Your task to perform on an android device: allow cookies in the chrome app Image 0: 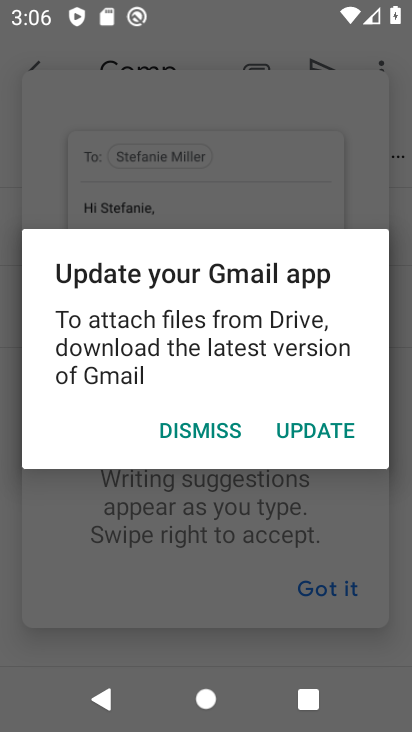
Step 0: press home button
Your task to perform on an android device: allow cookies in the chrome app Image 1: 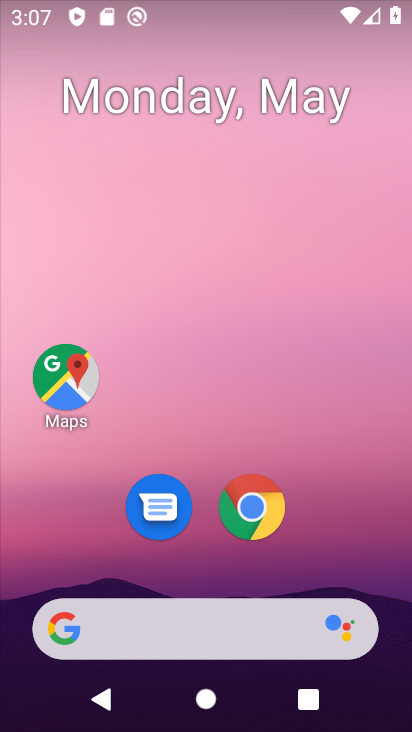
Step 1: click (272, 504)
Your task to perform on an android device: allow cookies in the chrome app Image 2: 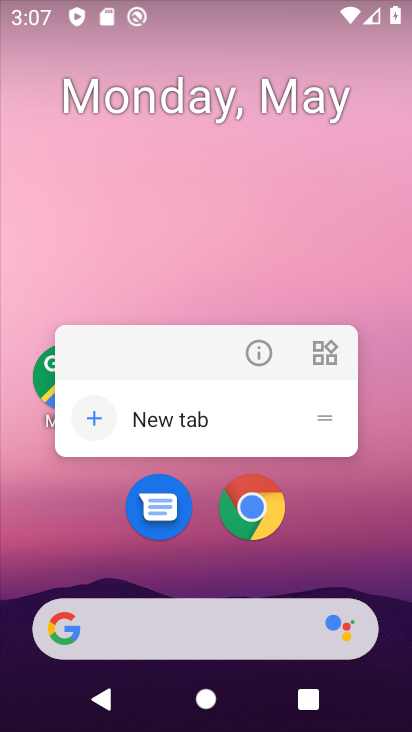
Step 2: click (258, 512)
Your task to perform on an android device: allow cookies in the chrome app Image 3: 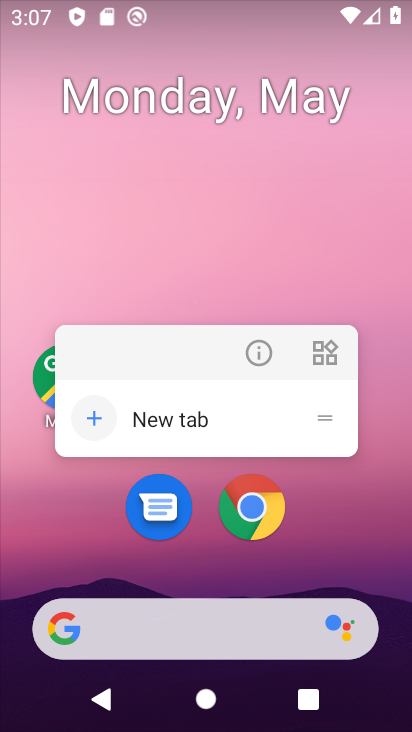
Step 3: click (259, 526)
Your task to perform on an android device: allow cookies in the chrome app Image 4: 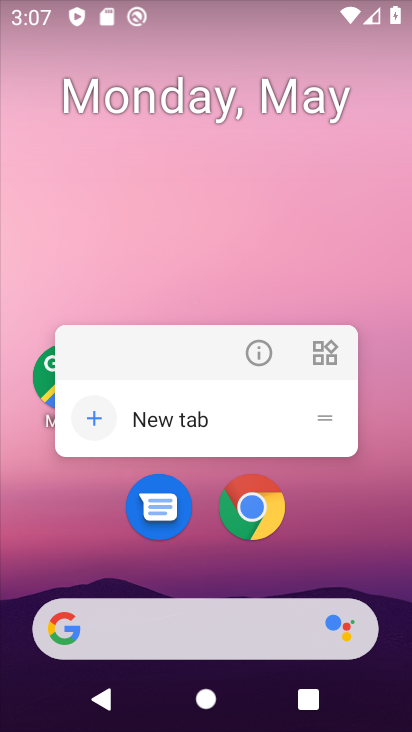
Step 4: click (259, 524)
Your task to perform on an android device: allow cookies in the chrome app Image 5: 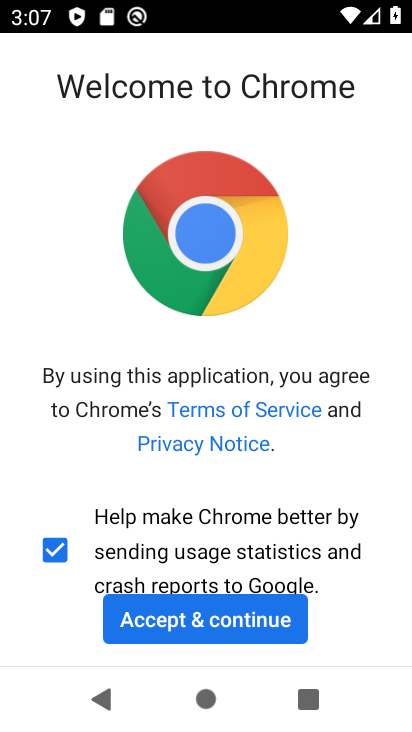
Step 5: click (239, 631)
Your task to perform on an android device: allow cookies in the chrome app Image 6: 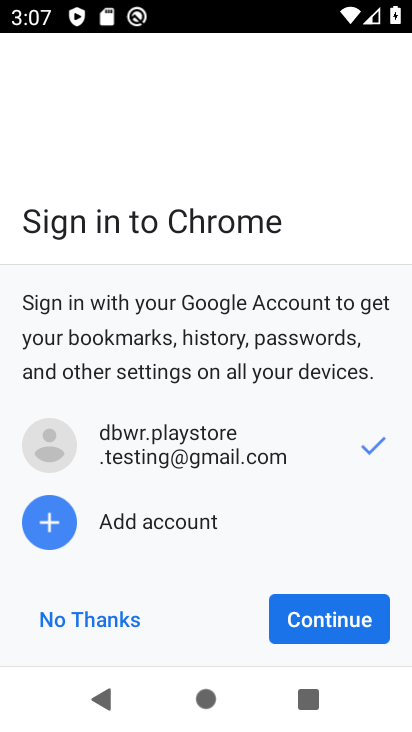
Step 6: click (322, 630)
Your task to perform on an android device: allow cookies in the chrome app Image 7: 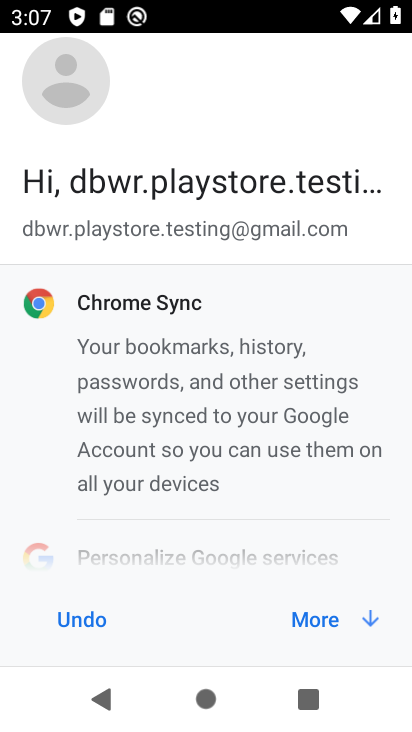
Step 7: click (320, 632)
Your task to perform on an android device: allow cookies in the chrome app Image 8: 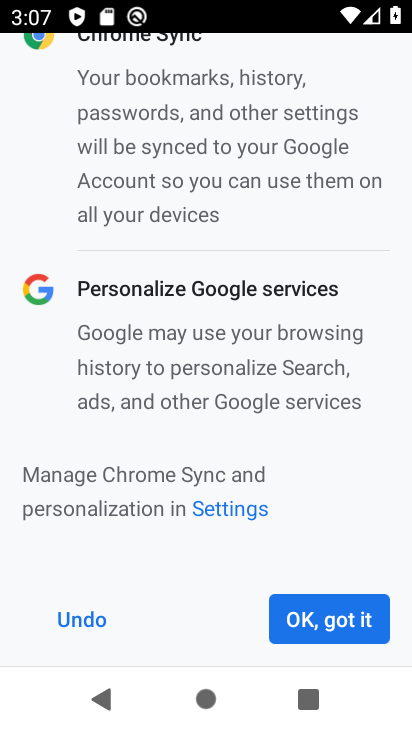
Step 8: click (320, 632)
Your task to perform on an android device: allow cookies in the chrome app Image 9: 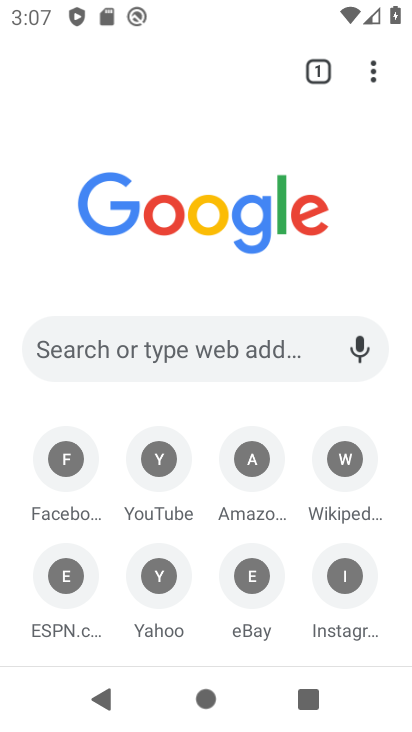
Step 9: drag from (385, 68) to (206, 508)
Your task to perform on an android device: allow cookies in the chrome app Image 10: 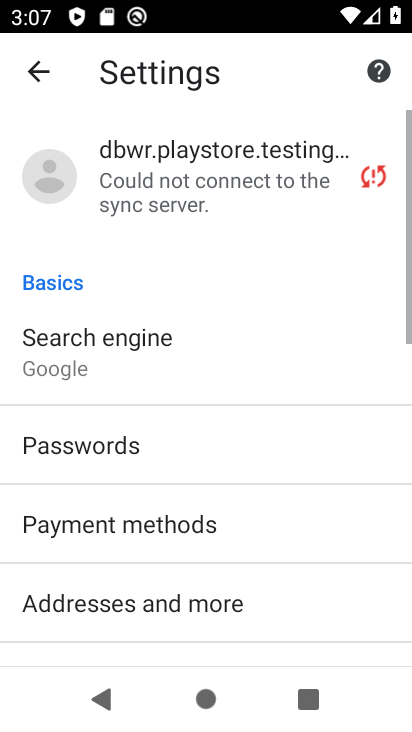
Step 10: drag from (174, 519) to (244, 122)
Your task to perform on an android device: allow cookies in the chrome app Image 11: 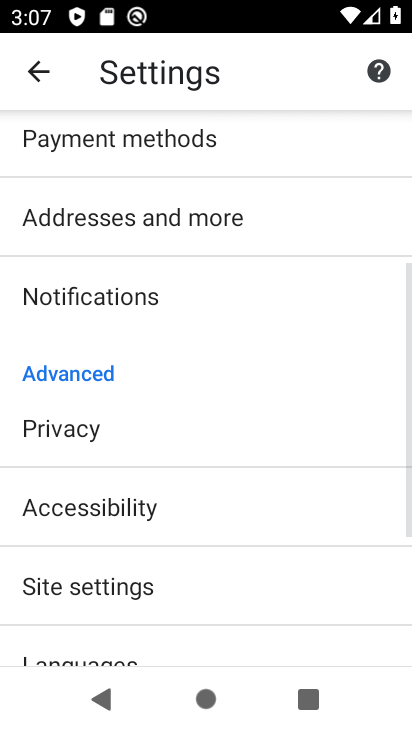
Step 11: drag from (176, 598) to (209, 365)
Your task to perform on an android device: allow cookies in the chrome app Image 12: 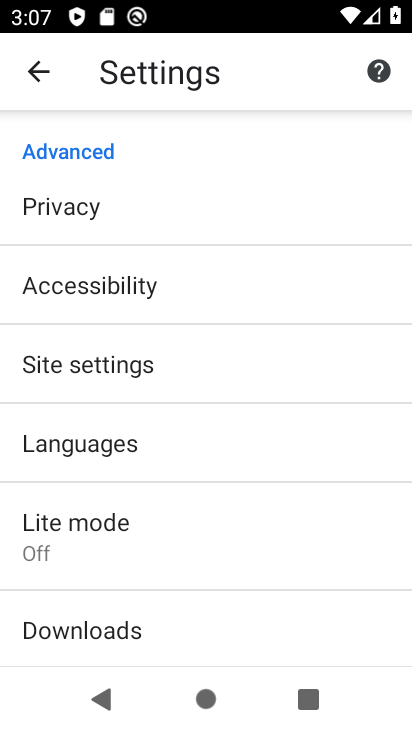
Step 12: click (157, 390)
Your task to perform on an android device: allow cookies in the chrome app Image 13: 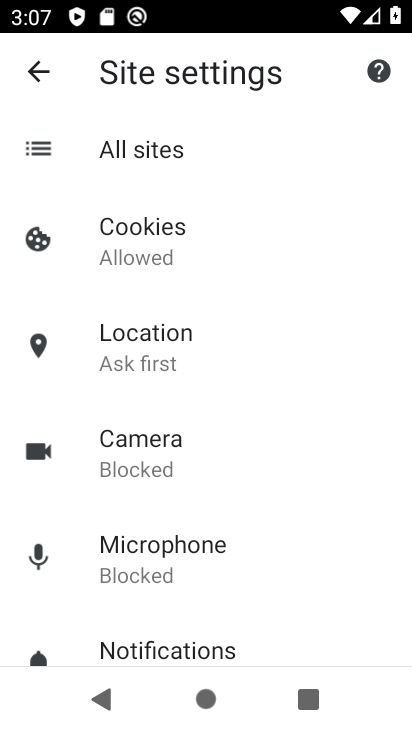
Step 13: click (224, 245)
Your task to perform on an android device: allow cookies in the chrome app Image 14: 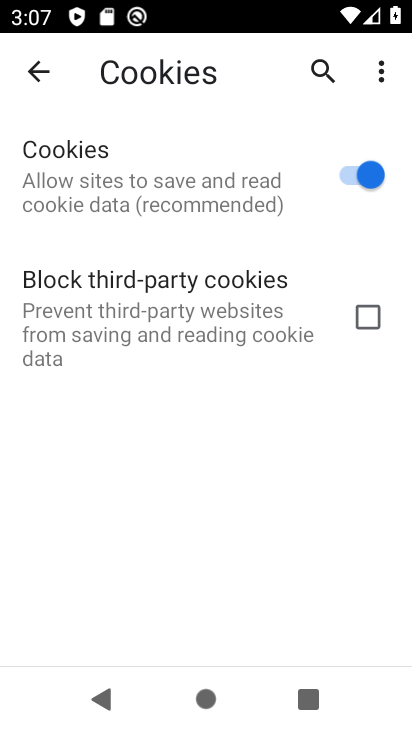
Step 14: task complete